Your task to perform on an android device: turn off wifi Image 0: 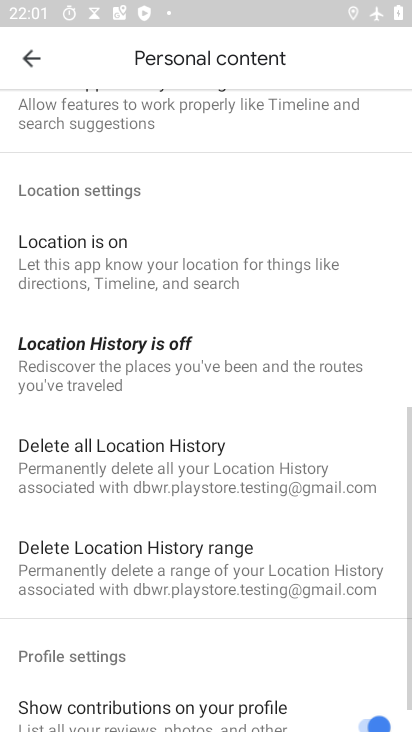
Step 0: press home button
Your task to perform on an android device: turn off wifi Image 1: 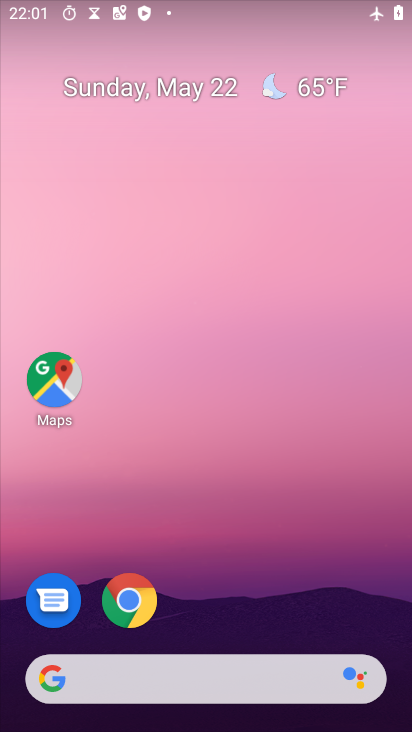
Step 1: drag from (199, 620) to (36, 29)
Your task to perform on an android device: turn off wifi Image 2: 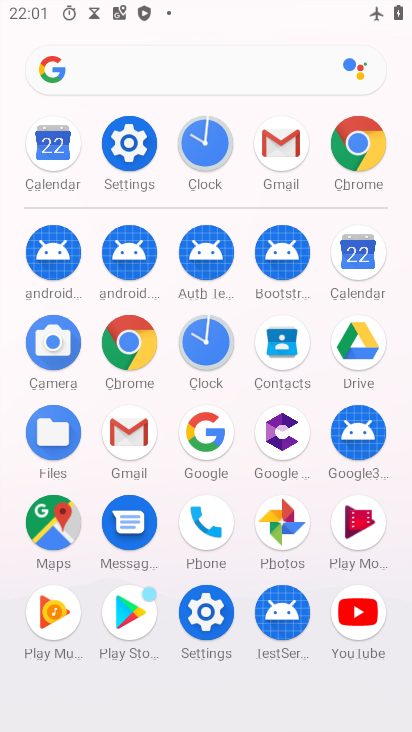
Step 2: click (119, 137)
Your task to perform on an android device: turn off wifi Image 3: 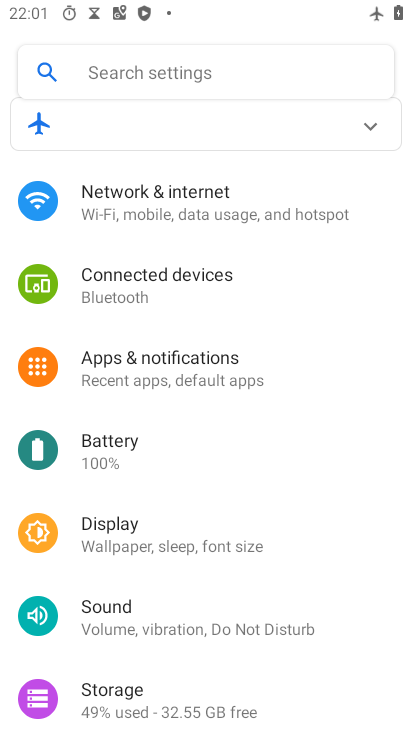
Step 3: click (119, 137)
Your task to perform on an android device: turn off wifi Image 4: 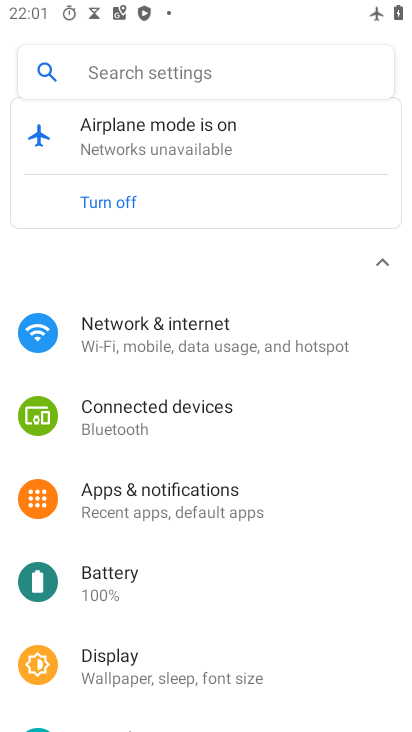
Step 4: click (126, 206)
Your task to perform on an android device: turn off wifi Image 5: 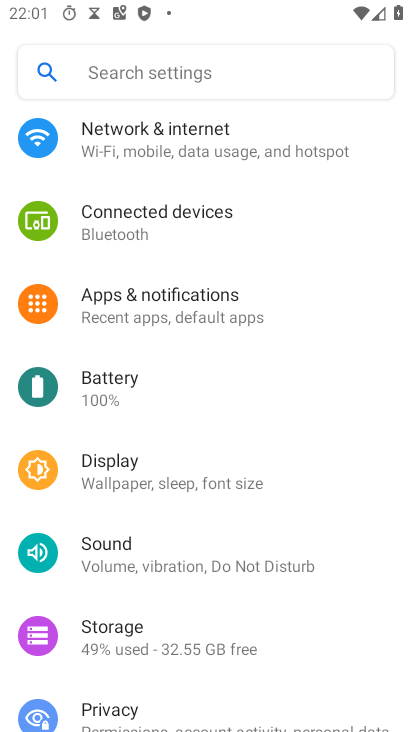
Step 5: task complete